Your task to perform on an android device: Open Android settings Image 0: 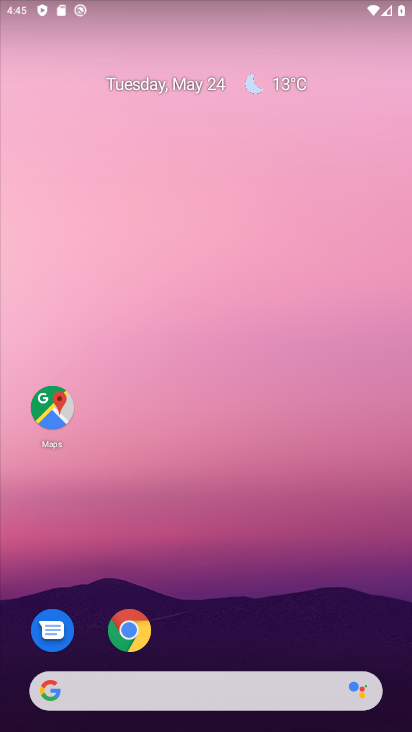
Step 0: drag from (193, 563) to (253, 91)
Your task to perform on an android device: Open Android settings Image 1: 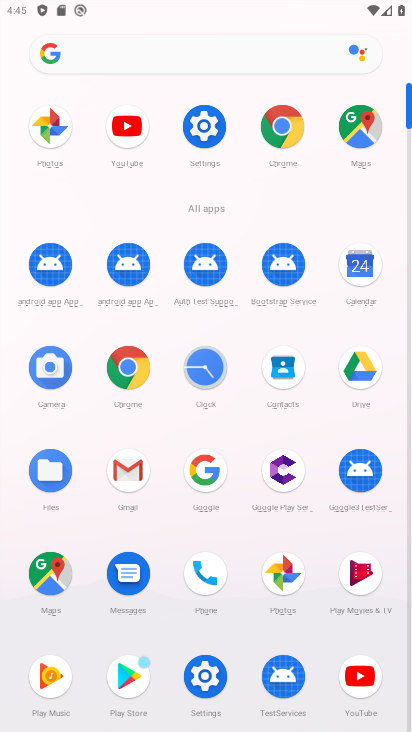
Step 1: click (204, 676)
Your task to perform on an android device: Open Android settings Image 2: 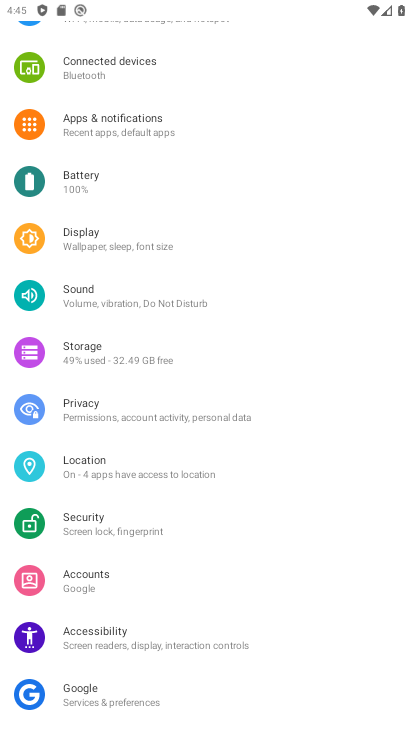
Step 2: drag from (144, 684) to (228, 165)
Your task to perform on an android device: Open Android settings Image 3: 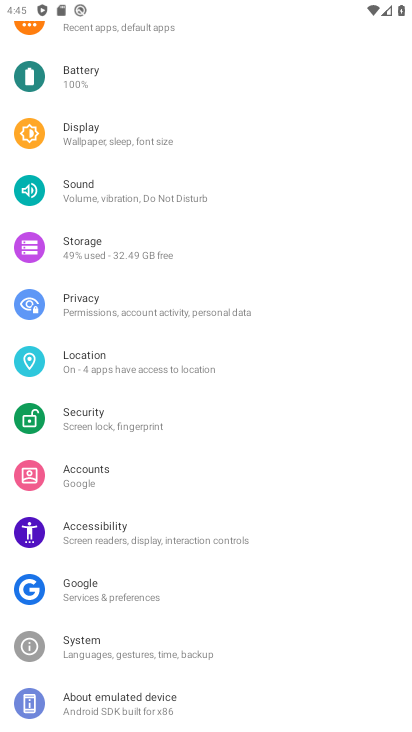
Step 3: click (132, 700)
Your task to perform on an android device: Open Android settings Image 4: 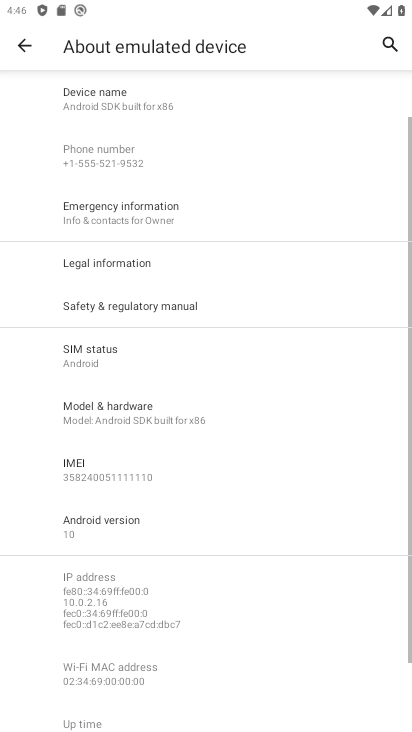
Step 4: click (106, 541)
Your task to perform on an android device: Open Android settings Image 5: 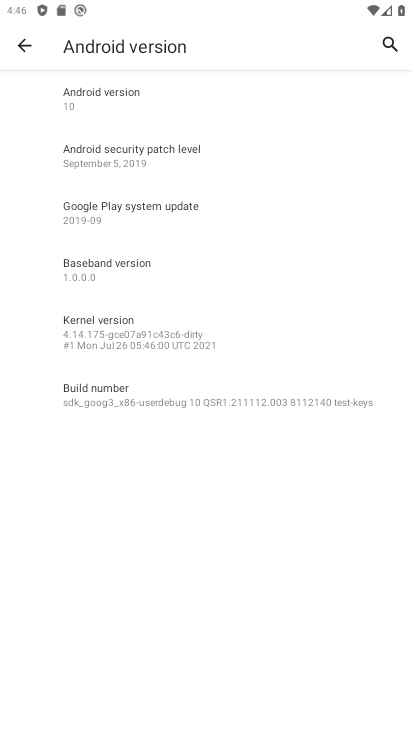
Step 5: task complete